Your task to perform on an android device: toggle priority inbox in the gmail app Image 0: 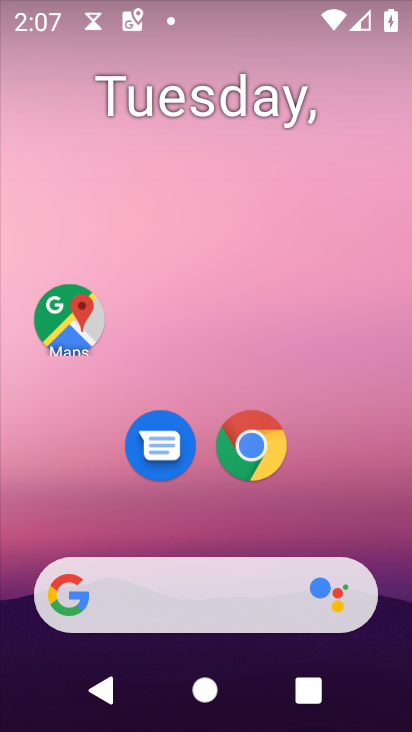
Step 0: drag from (345, 329) to (259, 9)
Your task to perform on an android device: toggle priority inbox in the gmail app Image 1: 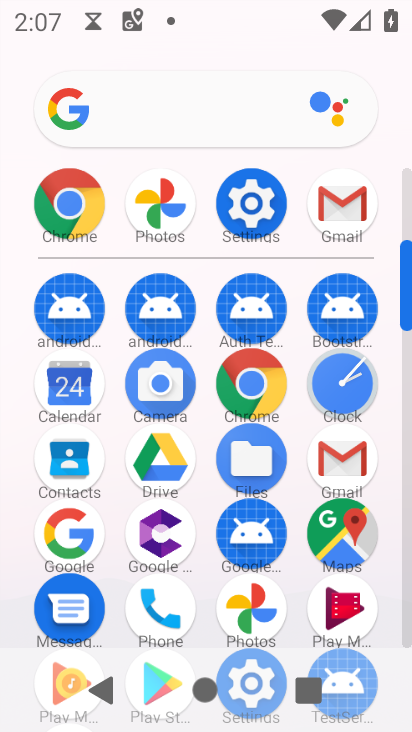
Step 1: click (344, 203)
Your task to perform on an android device: toggle priority inbox in the gmail app Image 2: 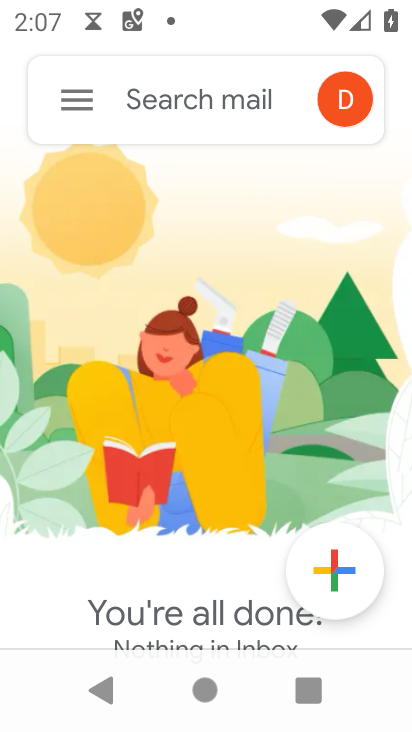
Step 2: click (68, 106)
Your task to perform on an android device: toggle priority inbox in the gmail app Image 3: 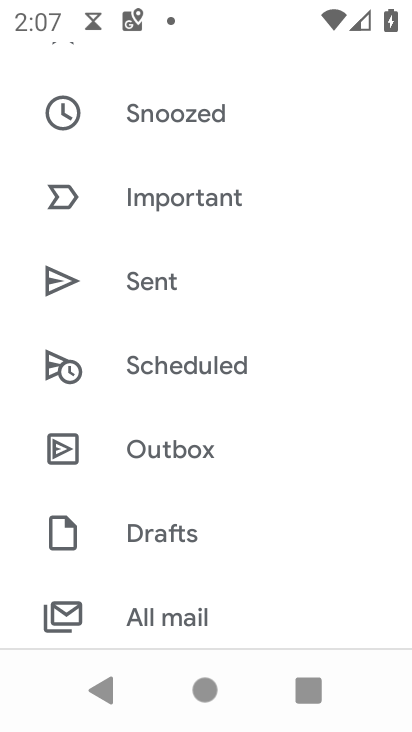
Step 3: drag from (211, 553) to (151, 126)
Your task to perform on an android device: toggle priority inbox in the gmail app Image 4: 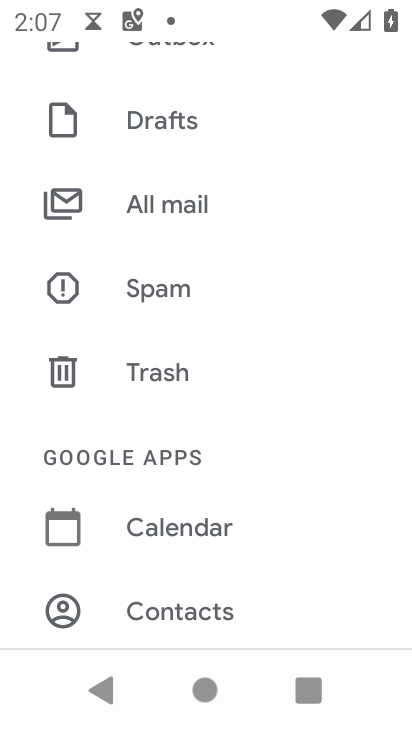
Step 4: drag from (254, 548) to (258, 183)
Your task to perform on an android device: toggle priority inbox in the gmail app Image 5: 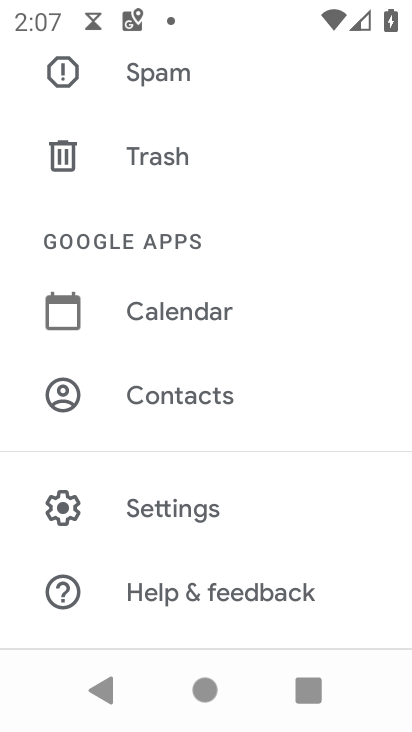
Step 5: click (219, 500)
Your task to perform on an android device: toggle priority inbox in the gmail app Image 6: 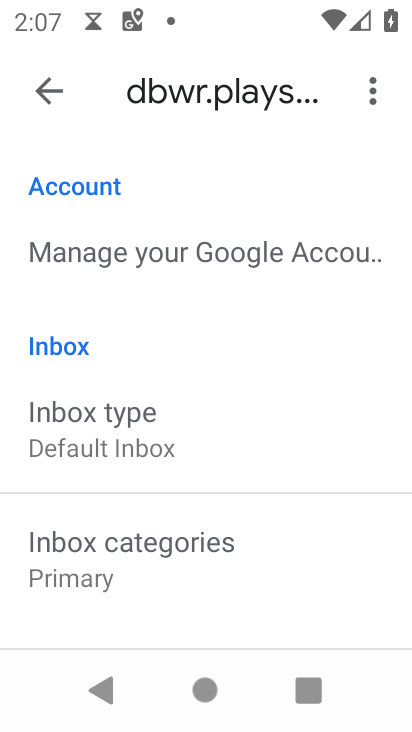
Step 6: drag from (196, 589) to (188, 281)
Your task to perform on an android device: toggle priority inbox in the gmail app Image 7: 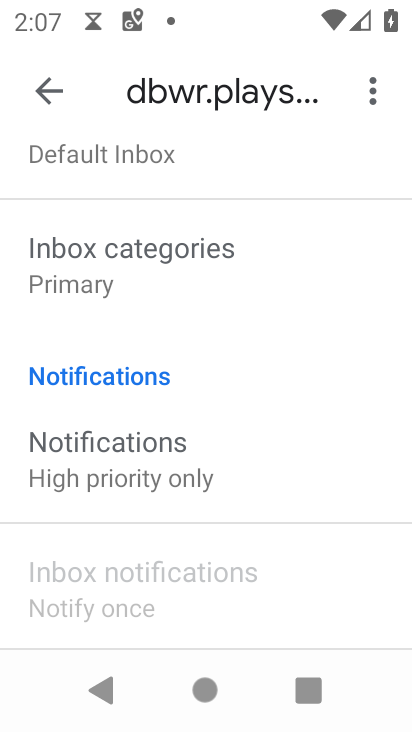
Step 7: drag from (149, 207) to (249, 569)
Your task to perform on an android device: toggle priority inbox in the gmail app Image 8: 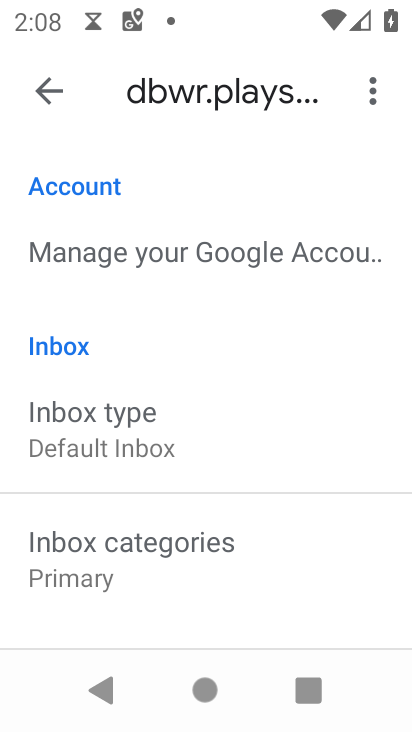
Step 8: click (146, 439)
Your task to perform on an android device: toggle priority inbox in the gmail app Image 9: 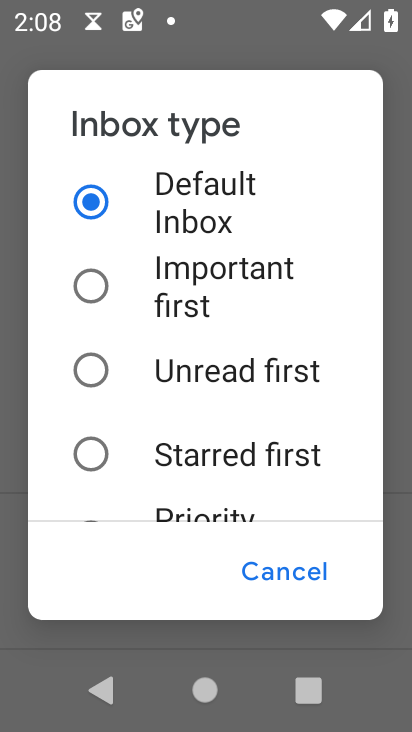
Step 9: task complete